Your task to perform on an android device: turn on translation in the chrome app Image 0: 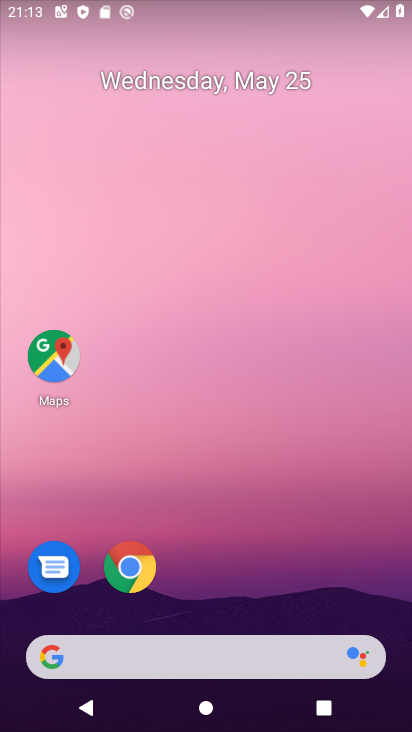
Step 0: click (138, 575)
Your task to perform on an android device: turn on translation in the chrome app Image 1: 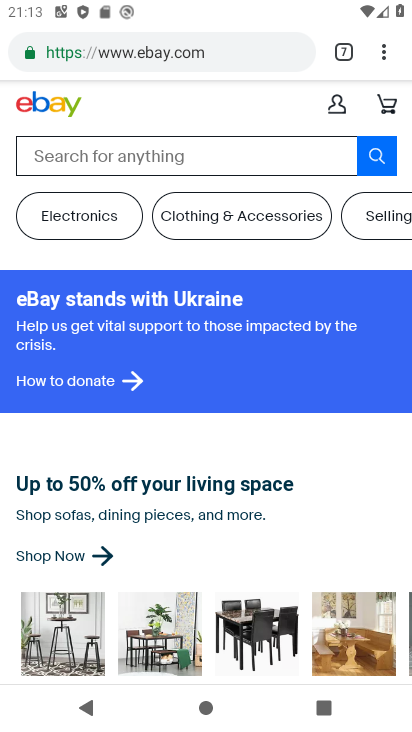
Step 1: click (378, 51)
Your task to perform on an android device: turn on translation in the chrome app Image 2: 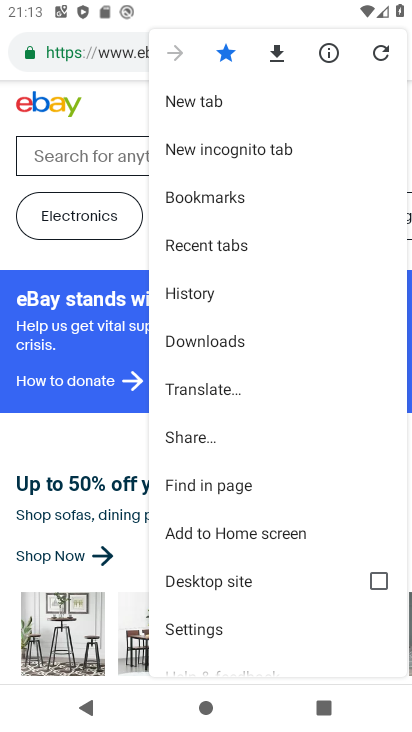
Step 2: click (219, 632)
Your task to perform on an android device: turn on translation in the chrome app Image 3: 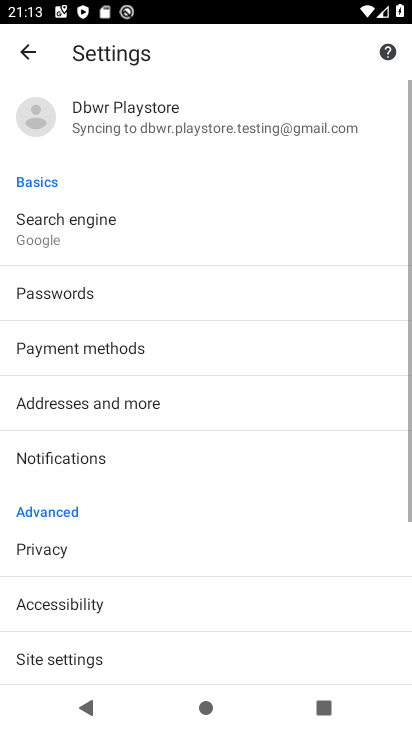
Step 3: drag from (219, 631) to (229, 388)
Your task to perform on an android device: turn on translation in the chrome app Image 4: 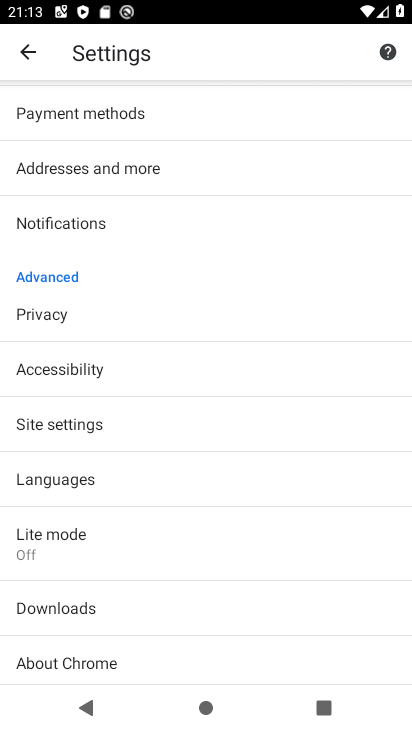
Step 4: click (219, 463)
Your task to perform on an android device: turn on translation in the chrome app Image 5: 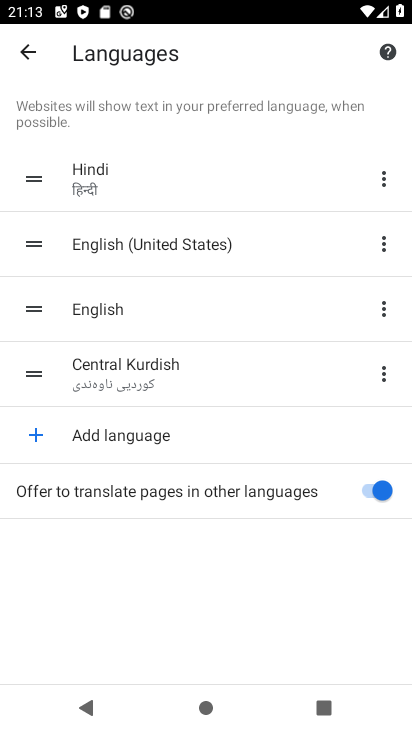
Step 5: task complete